Your task to perform on an android device: Add "alienware aurora" to the cart on target.com, then select checkout. Image 0: 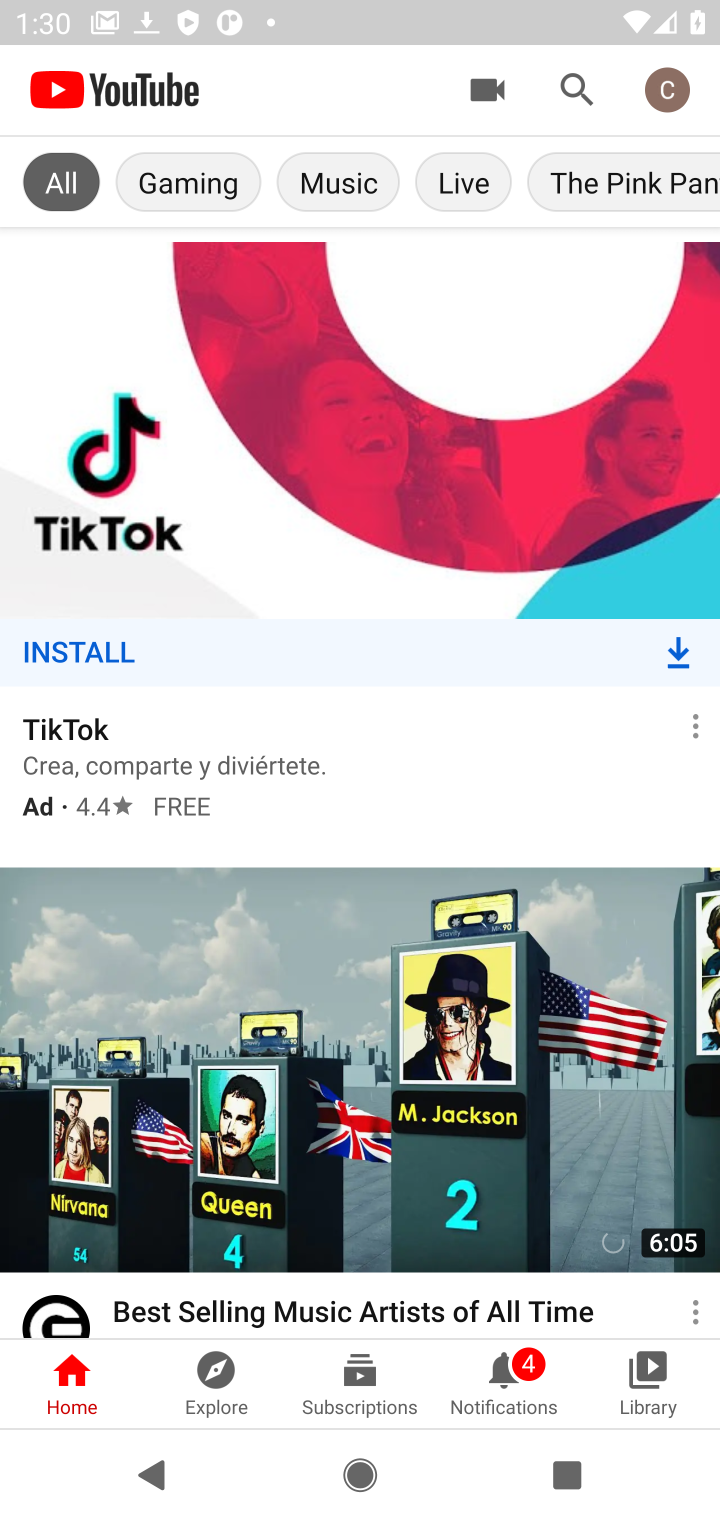
Step 0: press home button
Your task to perform on an android device: Add "alienware aurora" to the cart on target.com, then select checkout. Image 1: 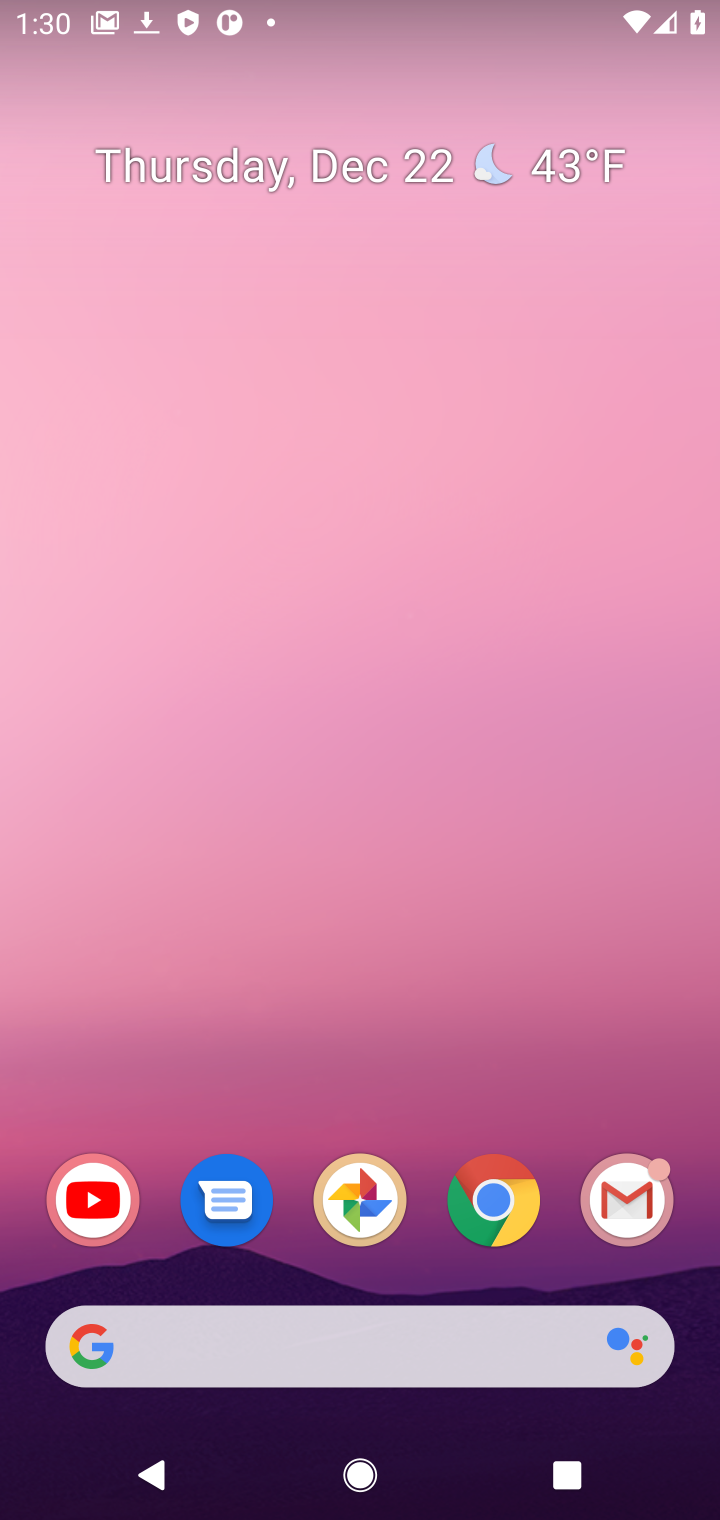
Step 1: click (490, 1206)
Your task to perform on an android device: Add "alienware aurora" to the cart on target.com, then select checkout. Image 2: 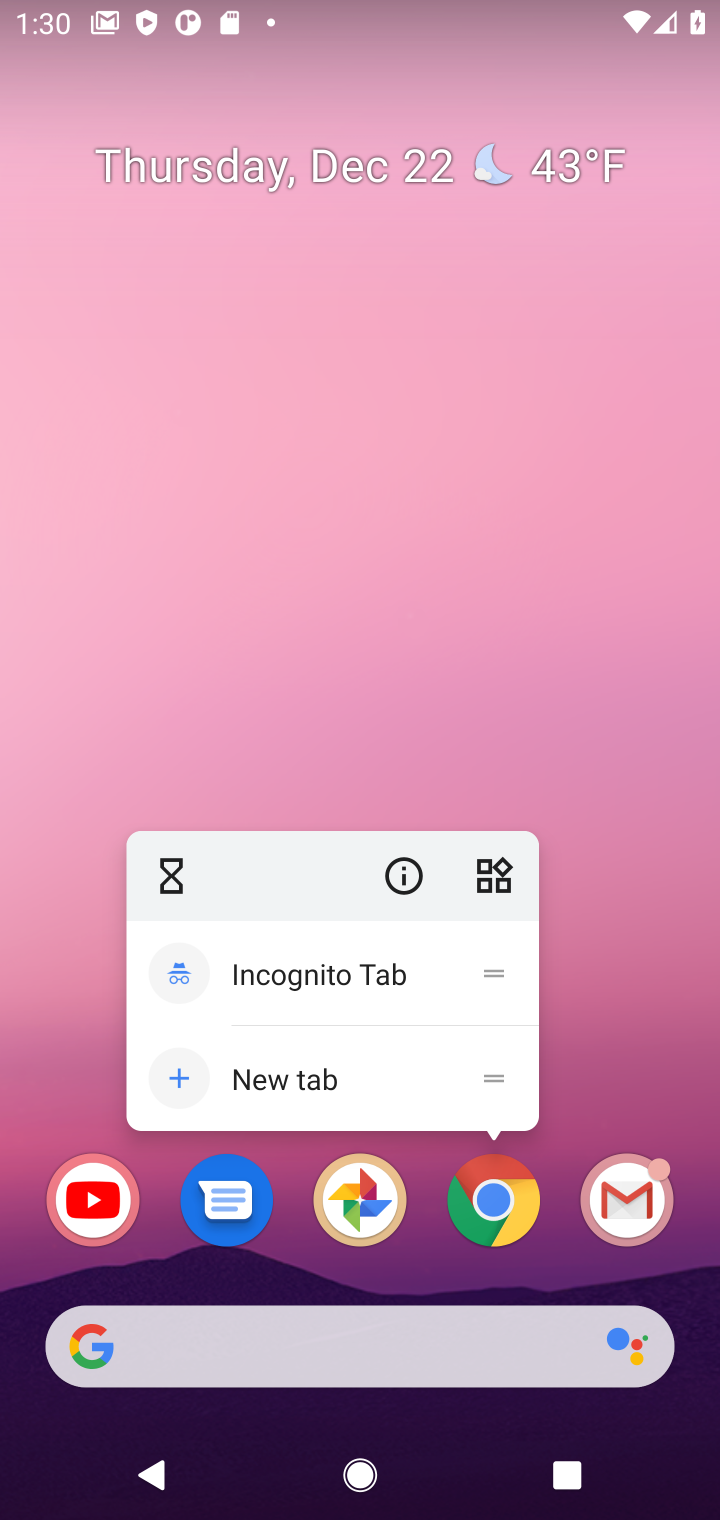
Step 2: click (490, 1206)
Your task to perform on an android device: Add "alienware aurora" to the cart on target.com, then select checkout. Image 3: 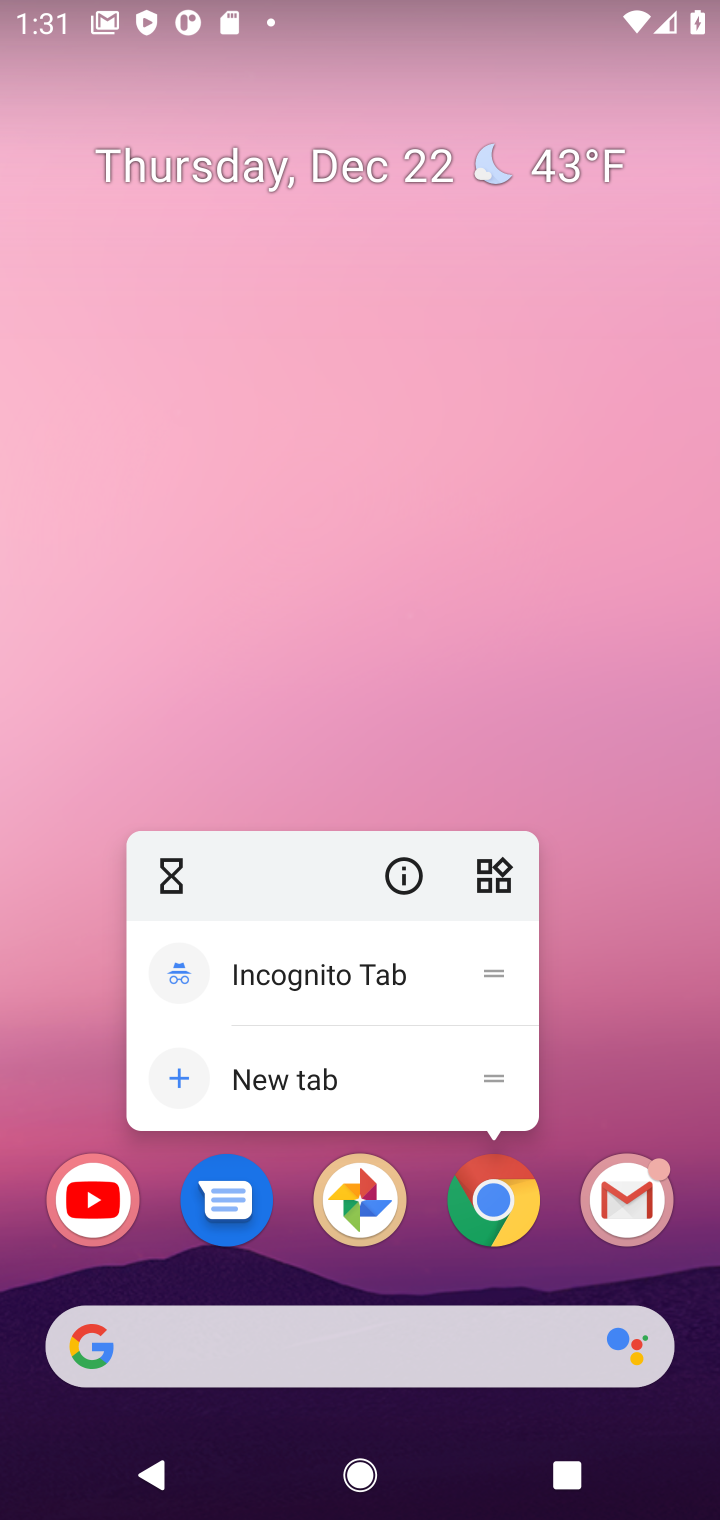
Step 3: click (548, 839)
Your task to perform on an android device: Add "alienware aurora" to the cart on target.com, then select checkout. Image 4: 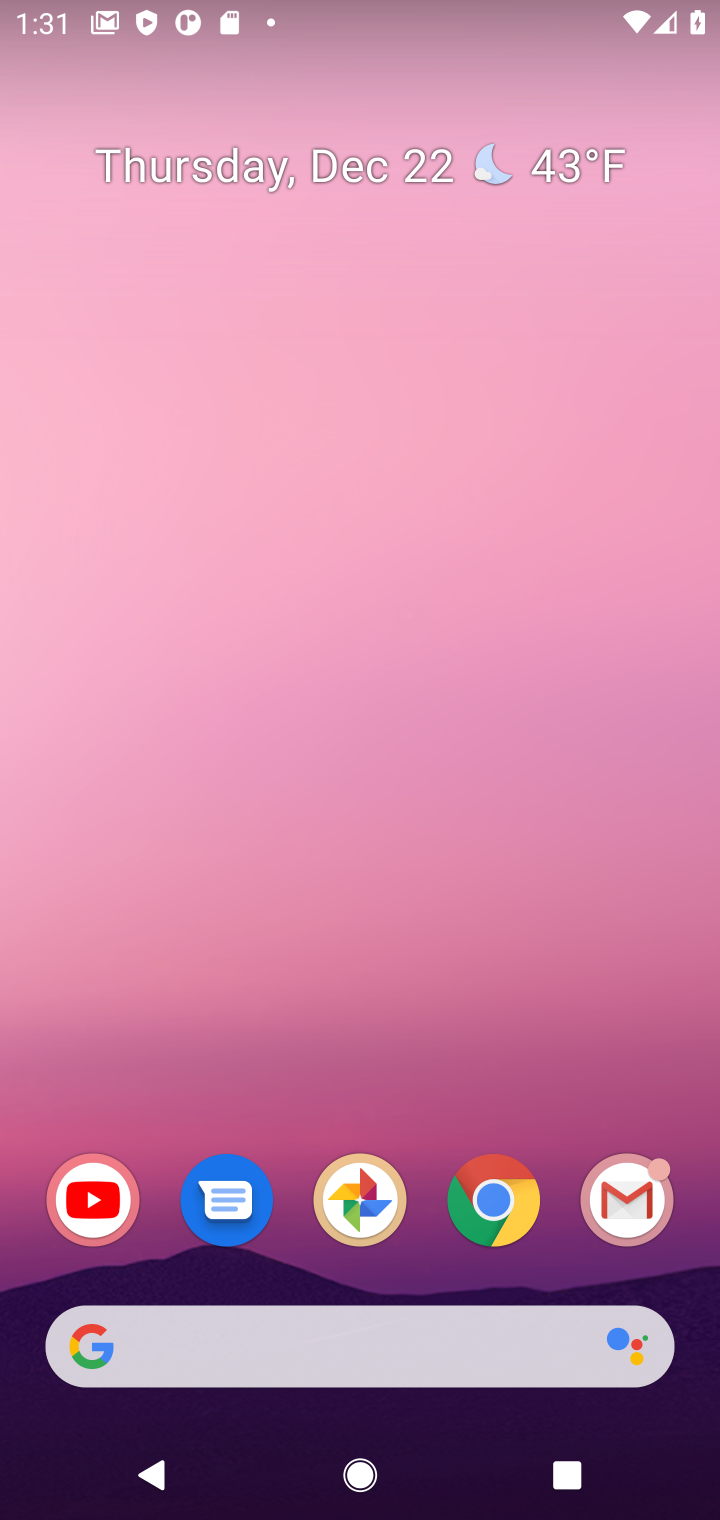
Step 4: click (489, 1192)
Your task to perform on an android device: Add "alienware aurora" to the cart on target.com, then select checkout. Image 5: 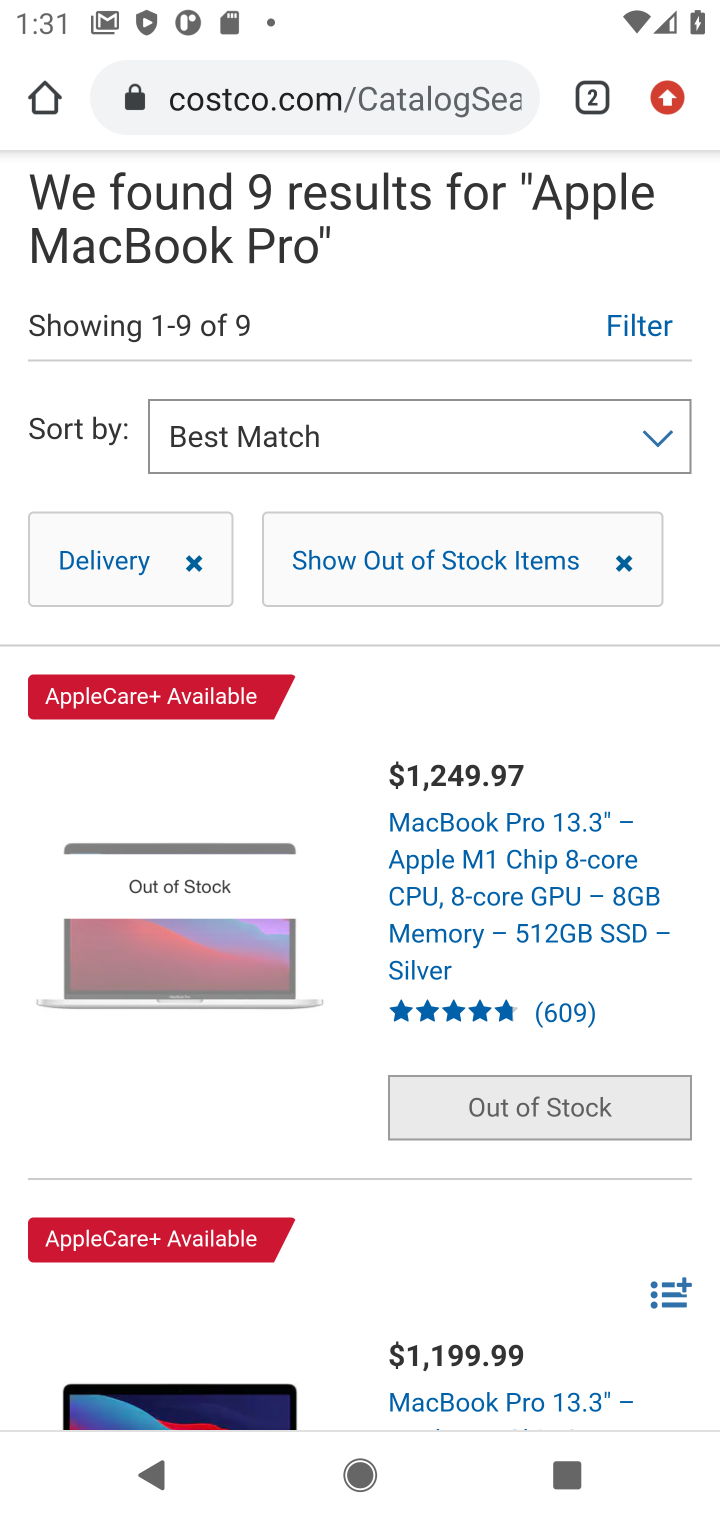
Step 5: click (258, 106)
Your task to perform on an android device: Add "alienware aurora" to the cart on target.com, then select checkout. Image 6: 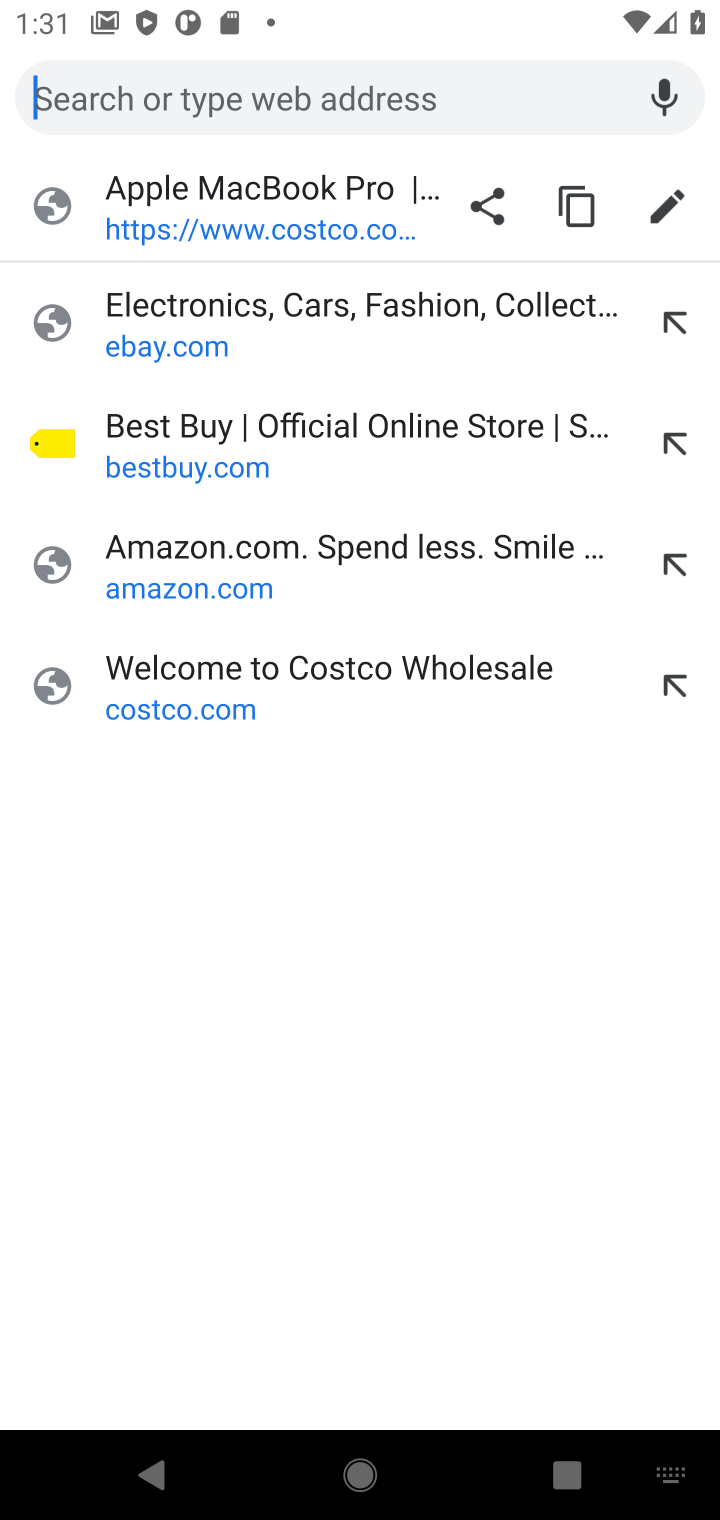
Step 6: type "target.com"
Your task to perform on an android device: Add "alienware aurora" to the cart on target.com, then select checkout. Image 7: 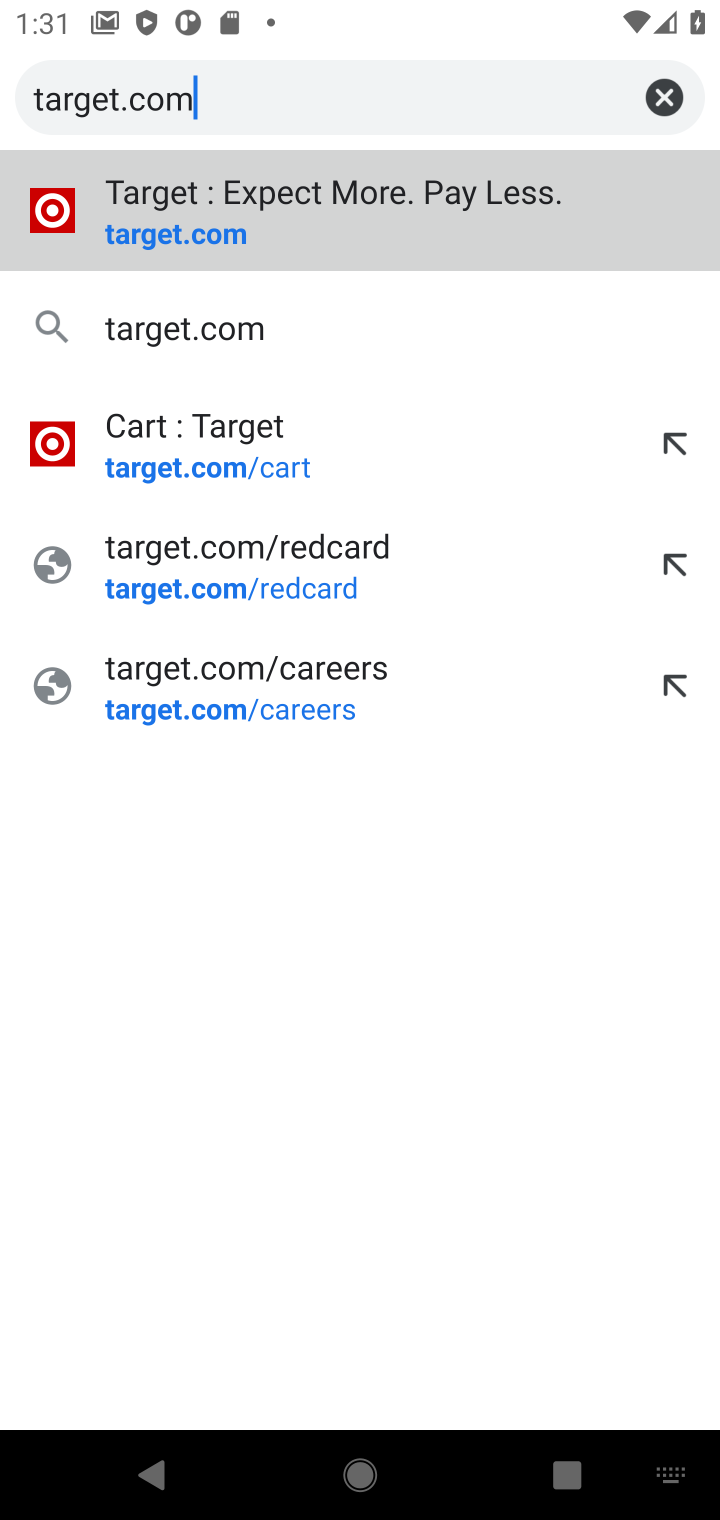
Step 7: click (111, 224)
Your task to perform on an android device: Add "alienware aurora" to the cart on target.com, then select checkout. Image 8: 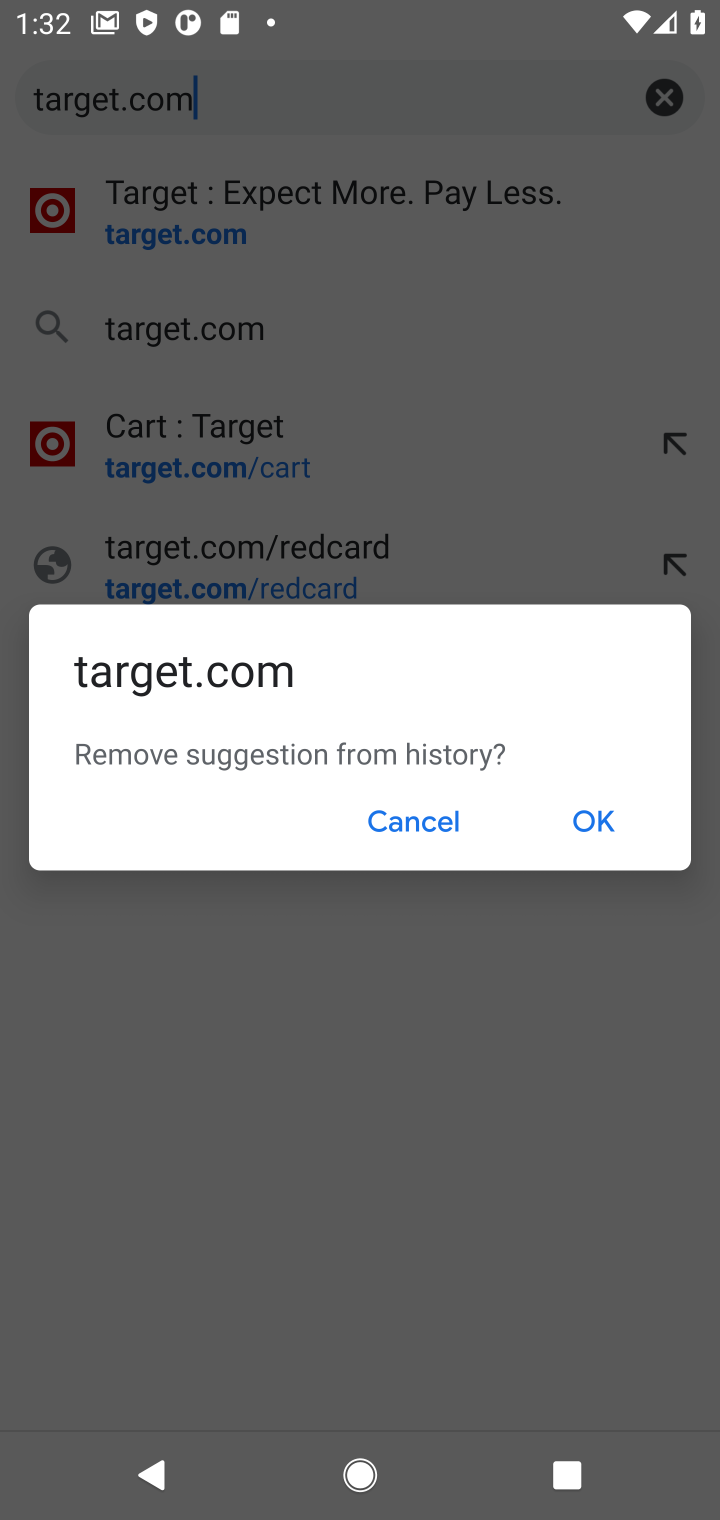
Step 8: click (406, 825)
Your task to perform on an android device: Add "alienware aurora" to the cart on target.com, then select checkout. Image 9: 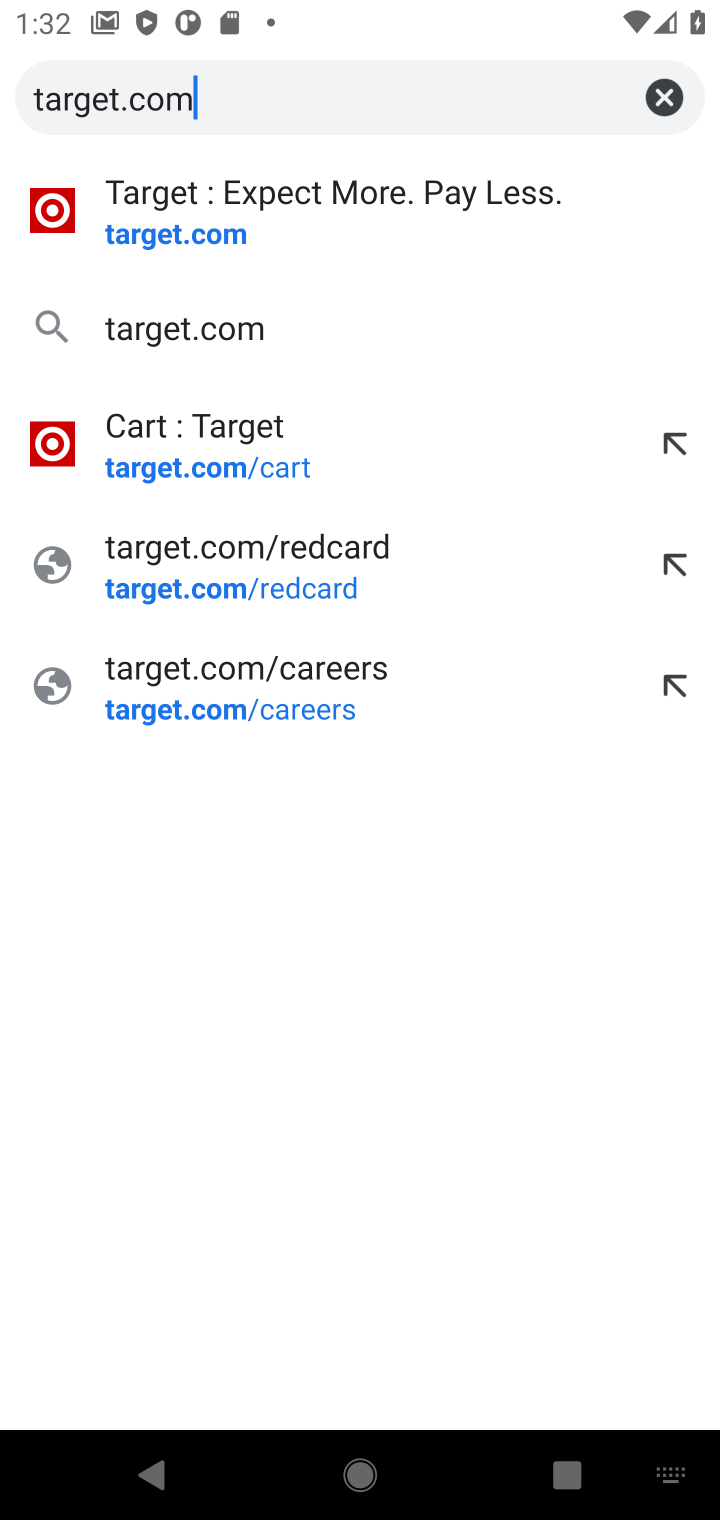
Step 9: click (178, 233)
Your task to perform on an android device: Add "alienware aurora" to the cart on target.com, then select checkout. Image 10: 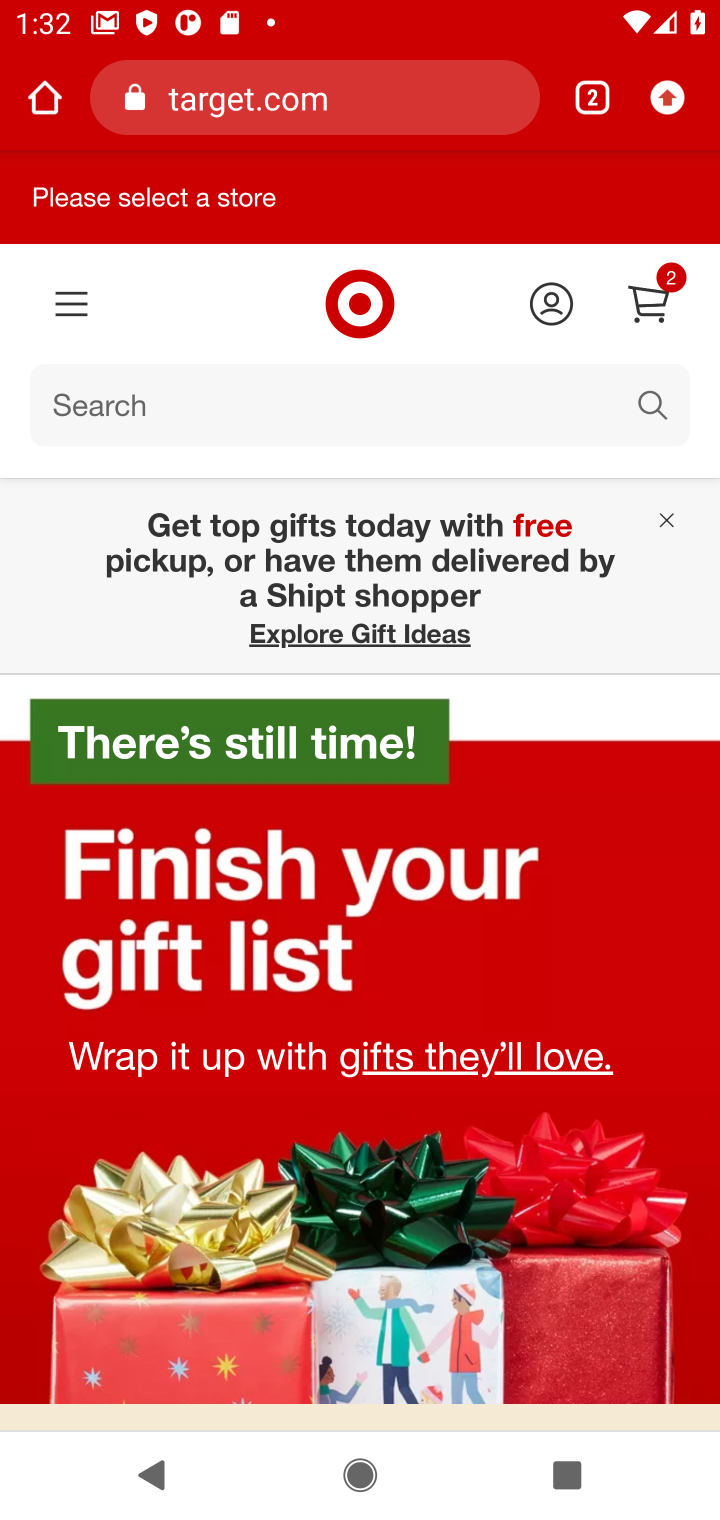
Step 10: click (61, 406)
Your task to perform on an android device: Add "alienware aurora" to the cart on target.com, then select checkout. Image 11: 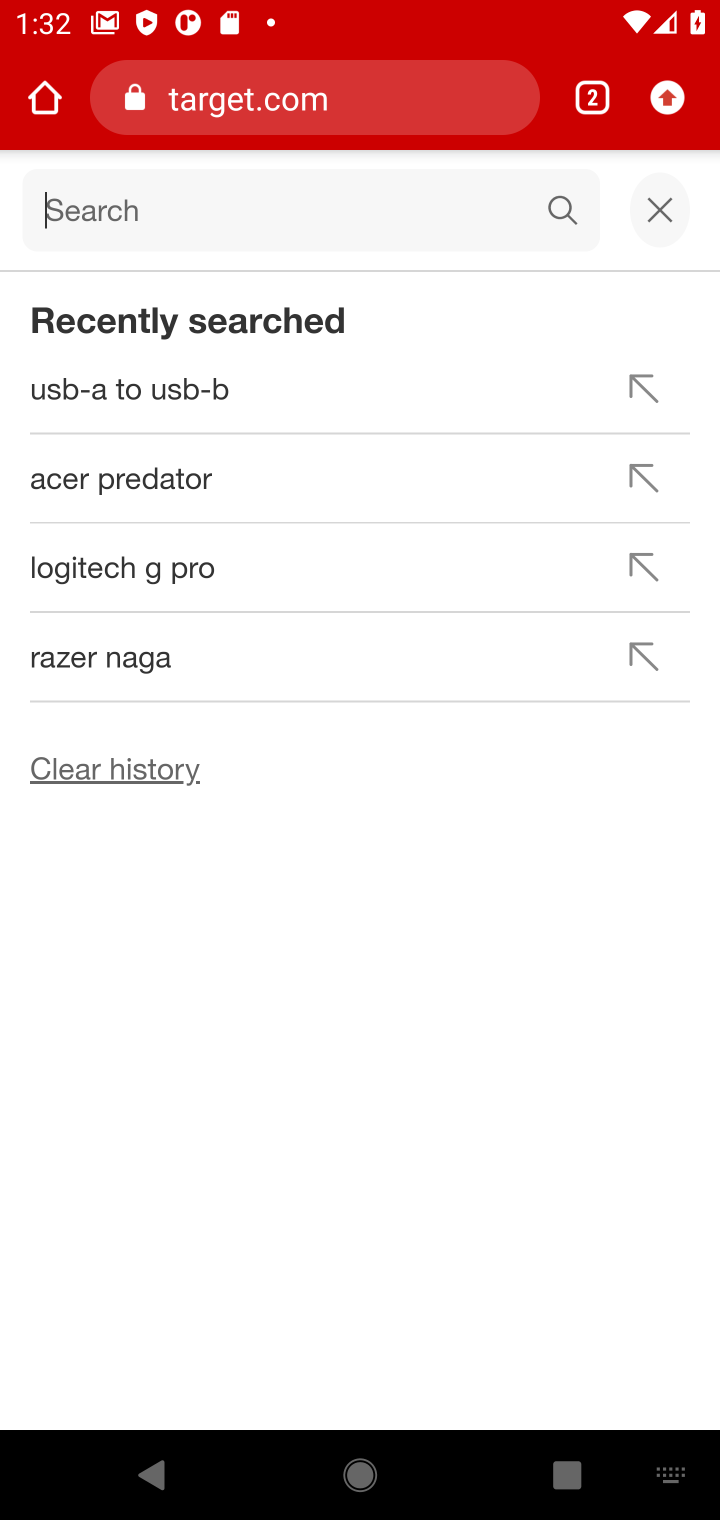
Step 11: type "alienware aurora"
Your task to perform on an android device: Add "alienware aurora" to the cart on target.com, then select checkout. Image 12: 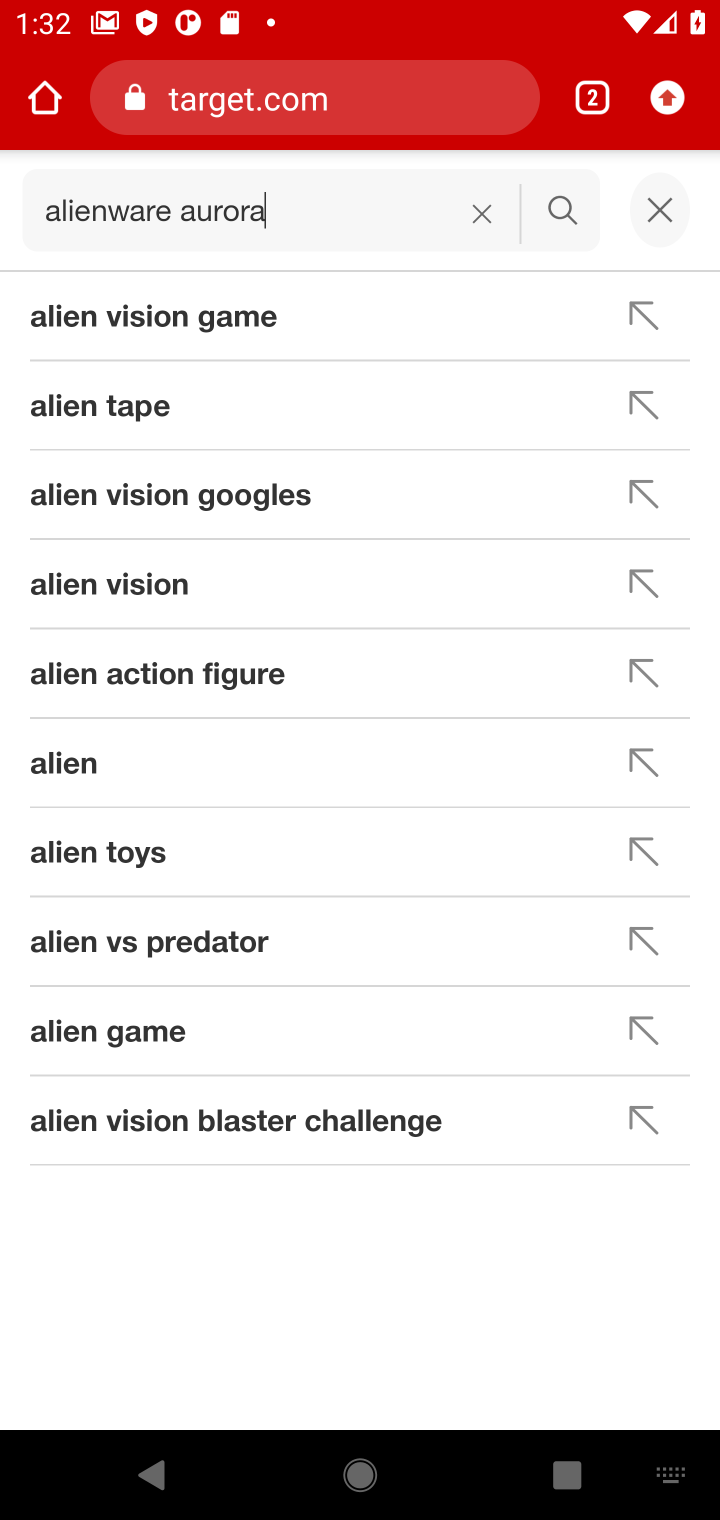
Step 12: click (573, 209)
Your task to perform on an android device: Add "alienware aurora" to the cart on target.com, then select checkout. Image 13: 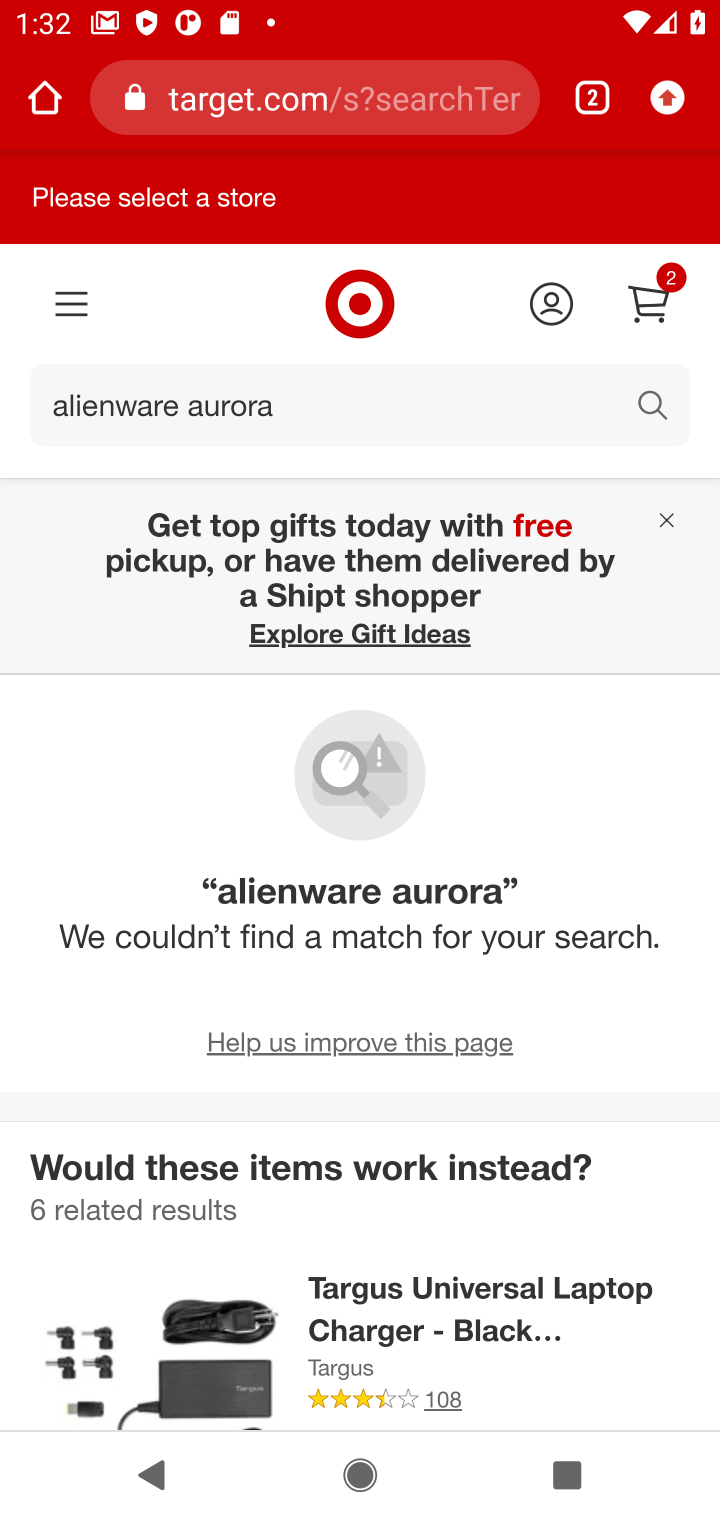
Step 13: task complete